Your task to perform on an android device: Show me the alarms in the clock app Image 0: 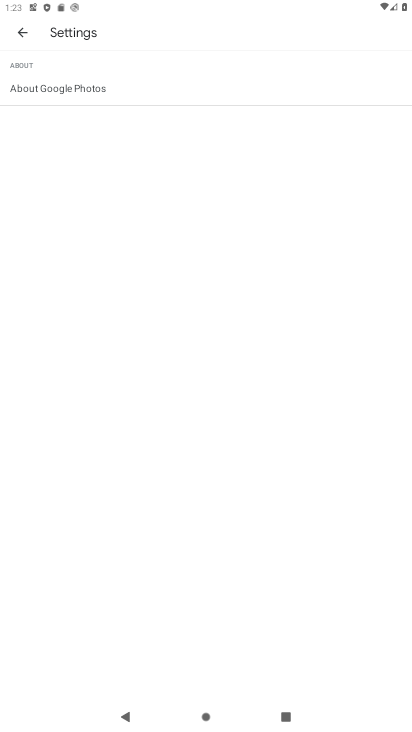
Step 0: press home button
Your task to perform on an android device: Show me the alarms in the clock app Image 1: 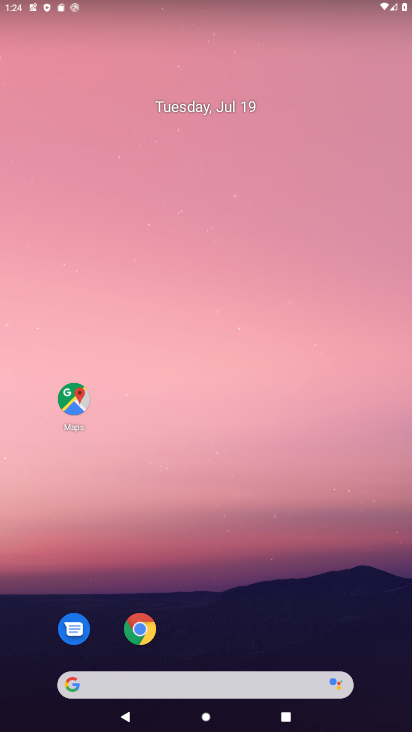
Step 1: drag from (202, 682) to (117, 131)
Your task to perform on an android device: Show me the alarms in the clock app Image 2: 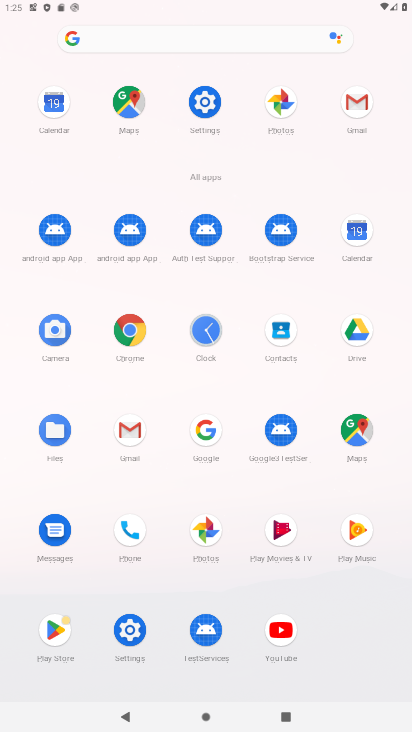
Step 2: click (210, 333)
Your task to perform on an android device: Show me the alarms in the clock app Image 3: 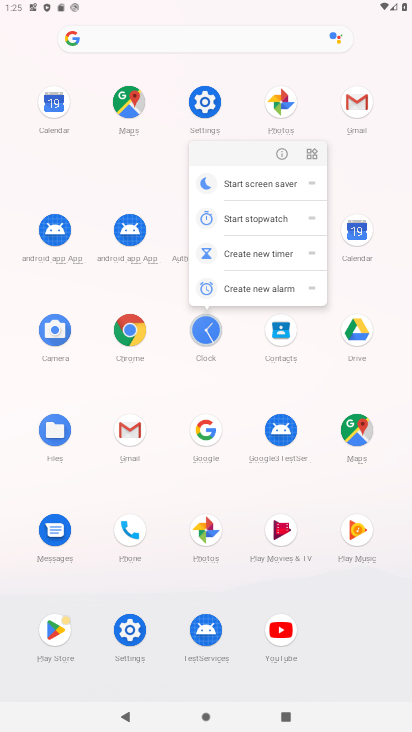
Step 3: click (204, 336)
Your task to perform on an android device: Show me the alarms in the clock app Image 4: 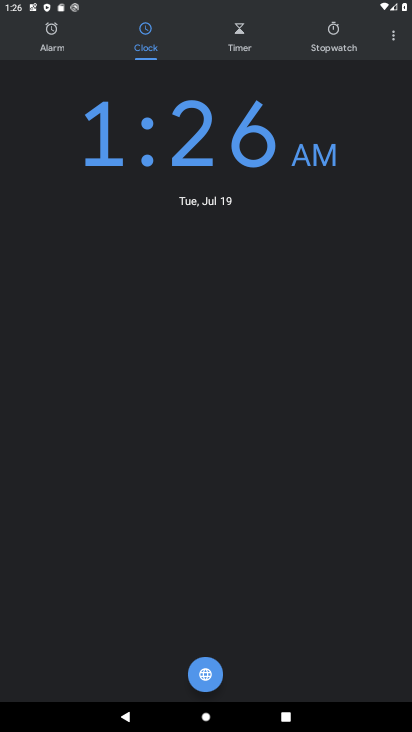
Step 4: click (46, 29)
Your task to perform on an android device: Show me the alarms in the clock app Image 5: 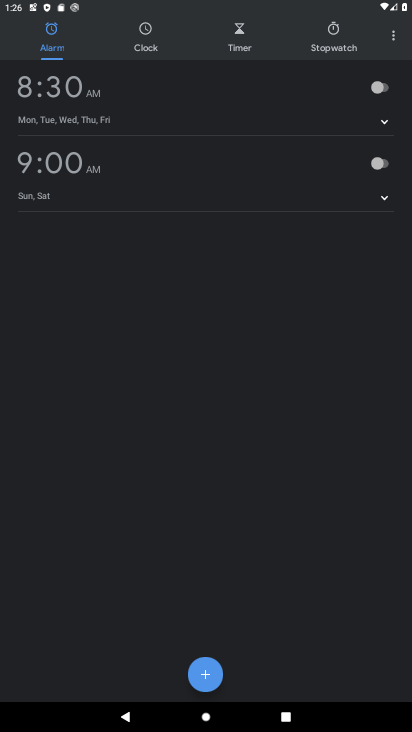
Step 5: task complete